Your task to perform on an android device: change the clock display to digital Image 0: 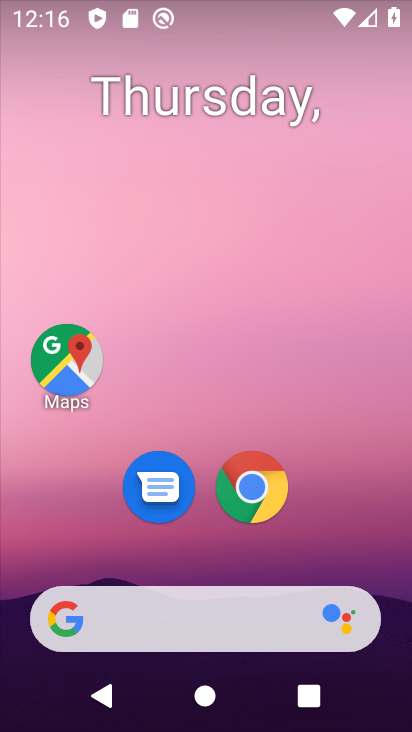
Step 0: drag from (392, 527) to (11, 232)
Your task to perform on an android device: change the clock display to digital Image 1: 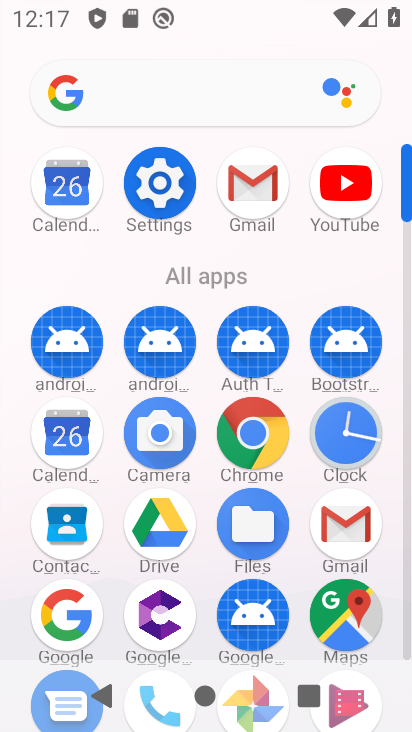
Step 1: click (341, 446)
Your task to perform on an android device: change the clock display to digital Image 2: 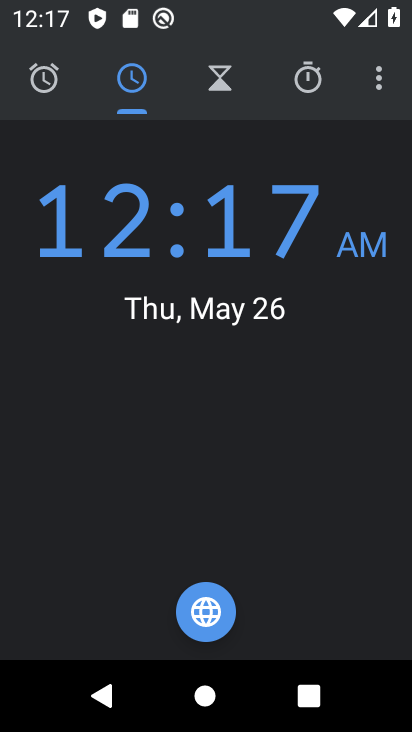
Step 2: click (381, 71)
Your task to perform on an android device: change the clock display to digital Image 3: 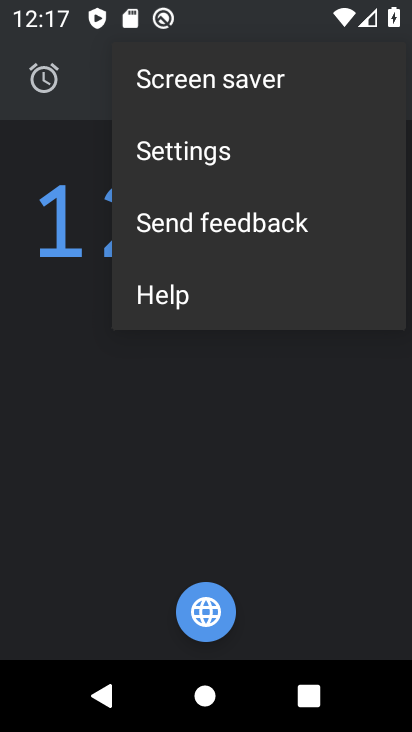
Step 3: click (140, 174)
Your task to perform on an android device: change the clock display to digital Image 4: 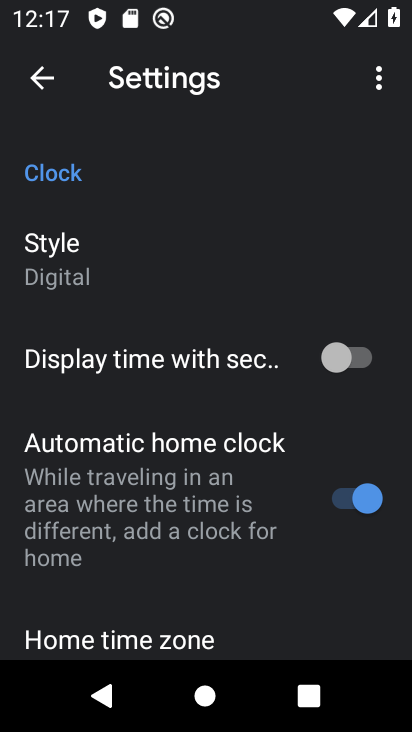
Step 4: click (132, 272)
Your task to perform on an android device: change the clock display to digital Image 5: 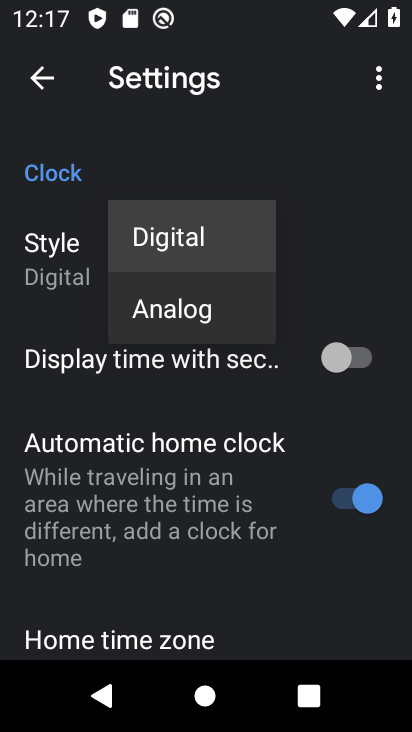
Step 5: task complete